Your task to perform on an android device: star an email in the gmail app Image 0: 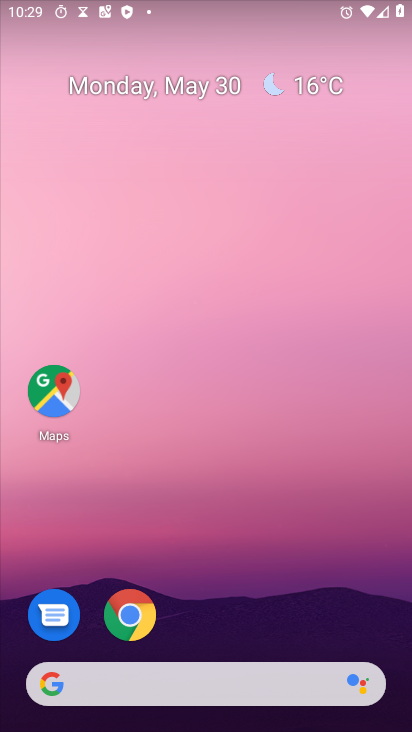
Step 0: drag from (295, 593) to (245, 9)
Your task to perform on an android device: star an email in the gmail app Image 1: 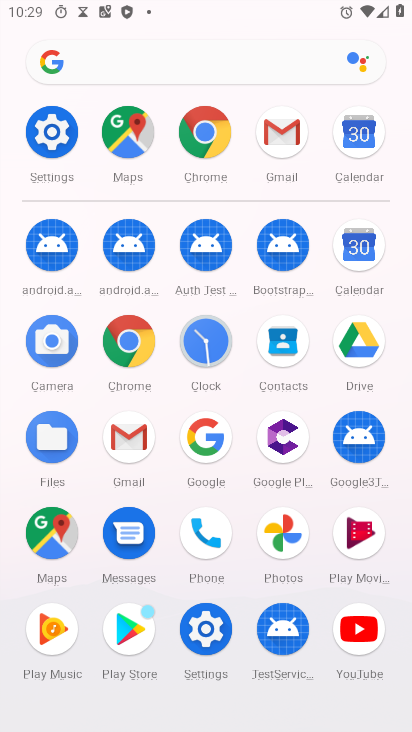
Step 1: click (260, 127)
Your task to perform on an android device: star an email in the gmail app Image 2: 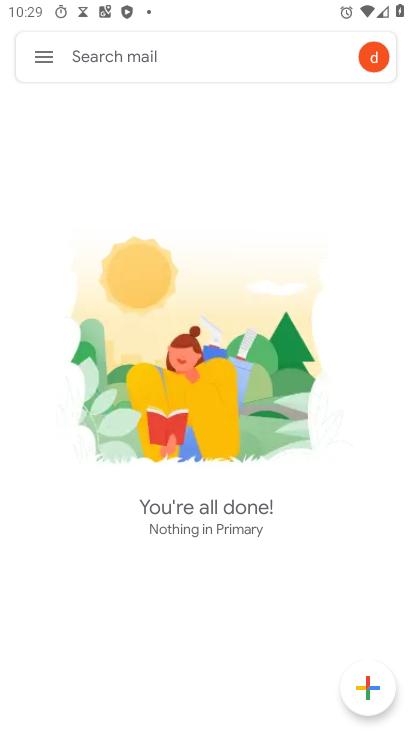
Step 2: click (36, 53)
Your task to perform on an android device: star an email in the gmail app Image 3: 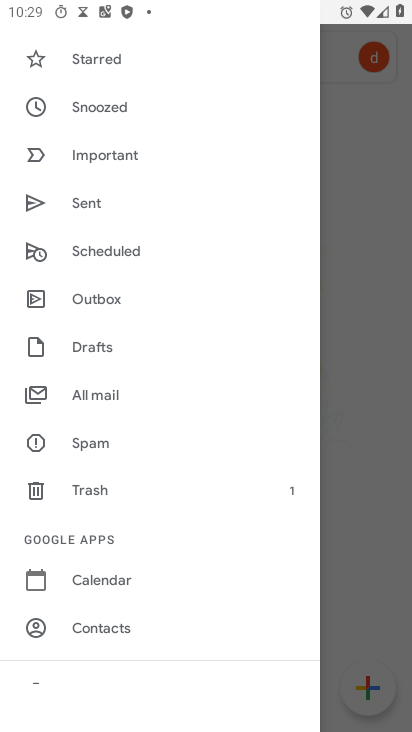
Step 3: drag from (134, 189) to (98, 576)
Your task to perform on an android device: star an email in the gmail app Image 4: 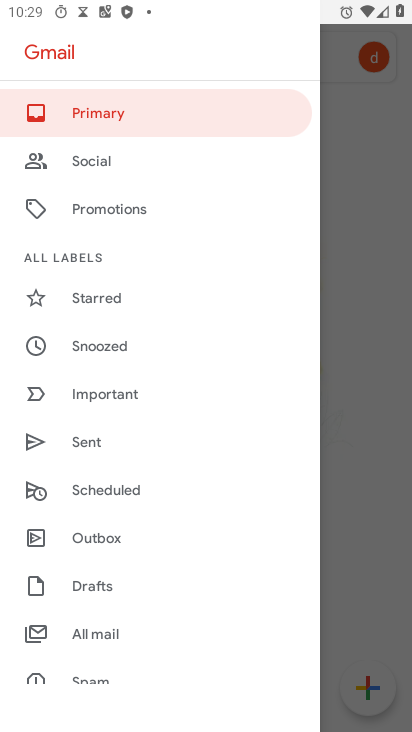
Step 4: drag from (176, 462) to (226, 61)
Your task to perform on an android device: star an email in the gmail app Image 5: 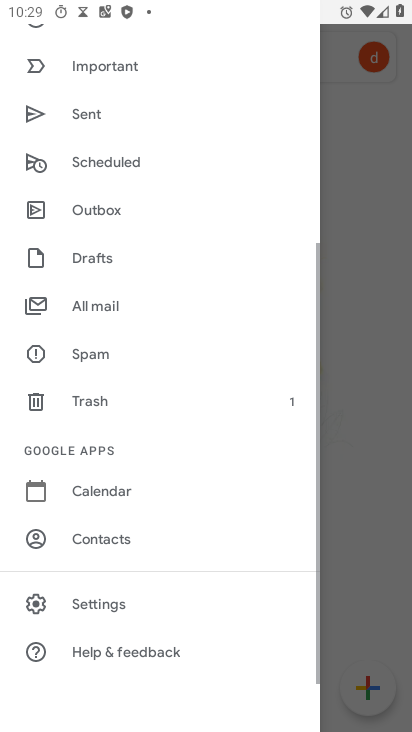
Step 5: click (107, 308)
Your task to perform on an android device: star an email in the gmail app Image 6: 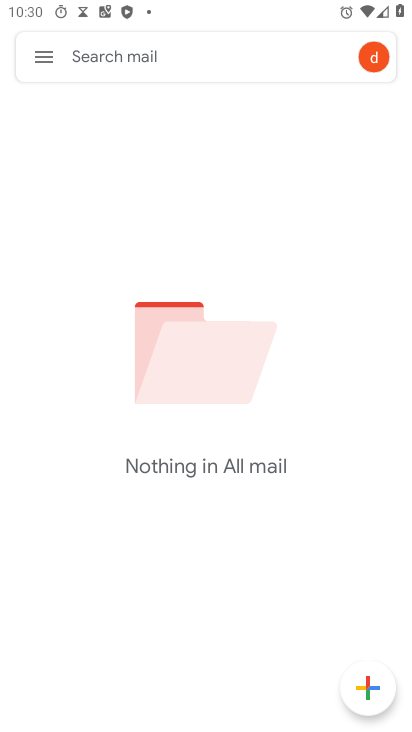
Step 6: task complete